Your task to perform on an android device: Go to internet settings Image 0: 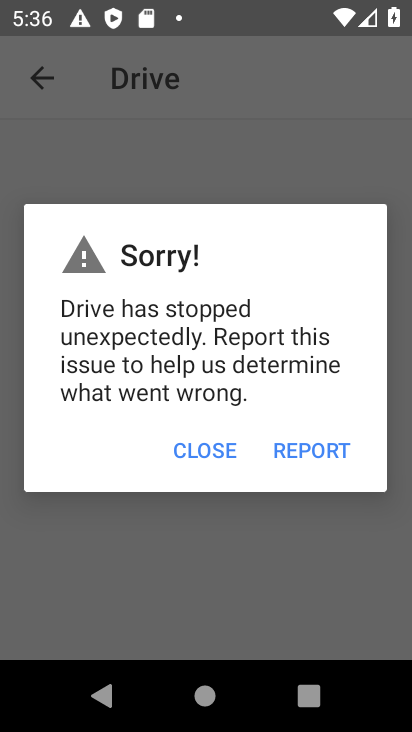
Step 0: press home button
Your task to perform on an android device: Go to internet settings Image 1: 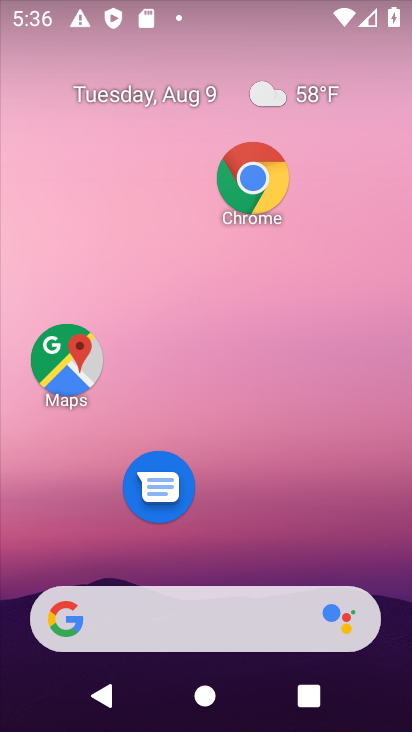
Step 1: drag from (287, 530) to (286, 60)
Your task to perform on an android device: Go to internet settings Image 2: 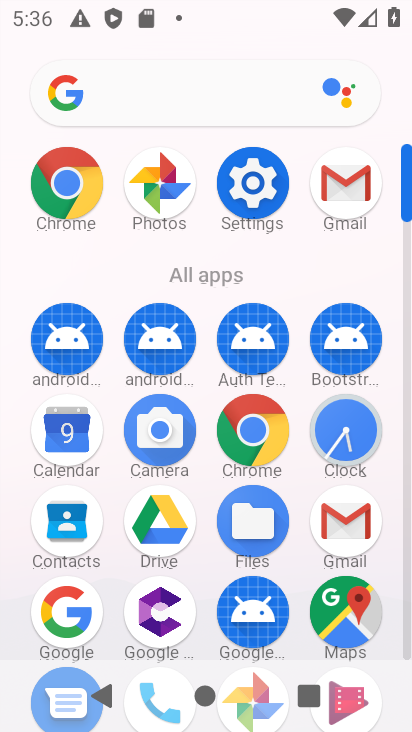
Step 2: click (248, 191)
Your task to perform on an android device: Go to internet settings Image 3: 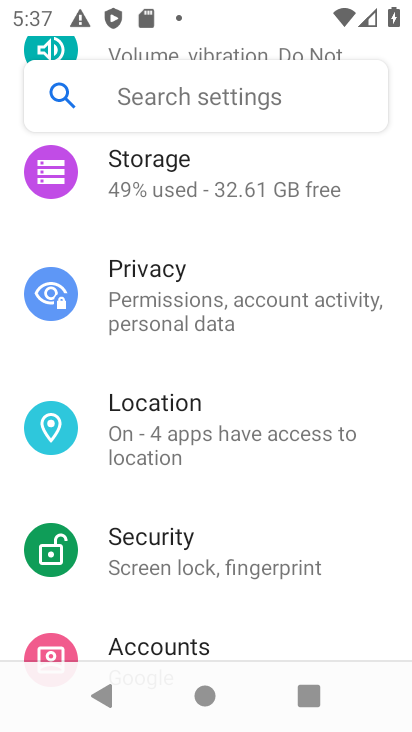
Step 3: drag from (344, 170) to (338, 704)
Your task to perform on an android device: Go to internet settings Image 4: 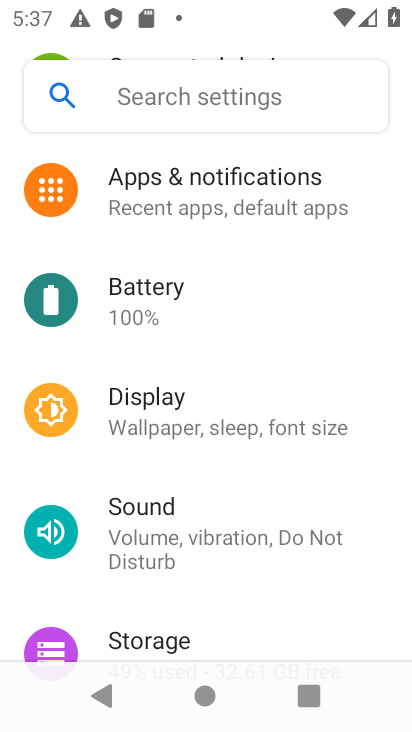
Step 4: drag from (311, 290) to (318, 548)
Your task to perform on an android device: Go to internet settings Image 5: 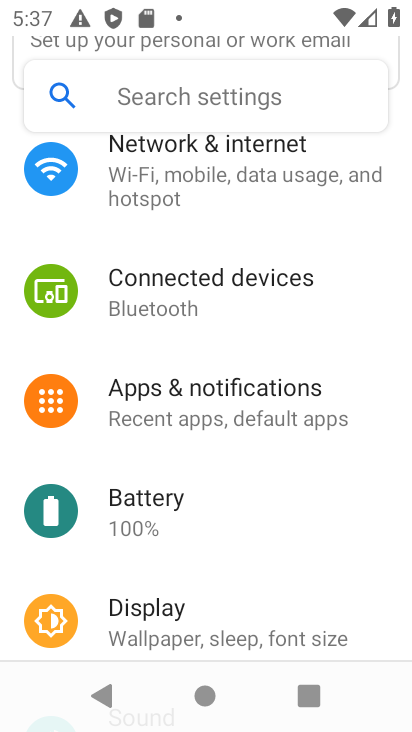
Step 5: click (167, 279)
Your task to perform on an android device: Go to internet settings Image 6: 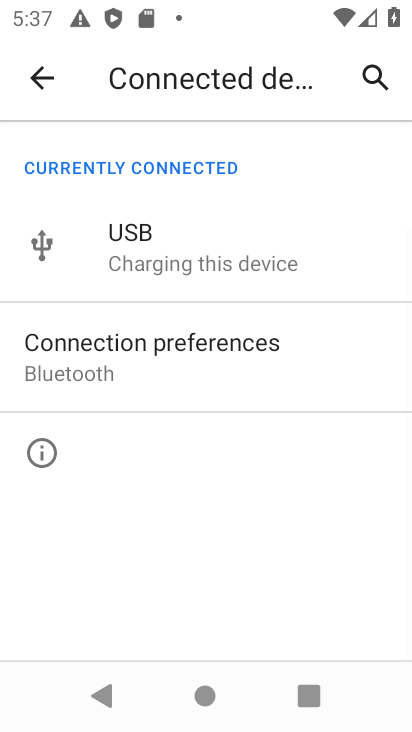
Step 6: click (46, 85)
Your task to perform on an android device: Go to internet settings Image 7: 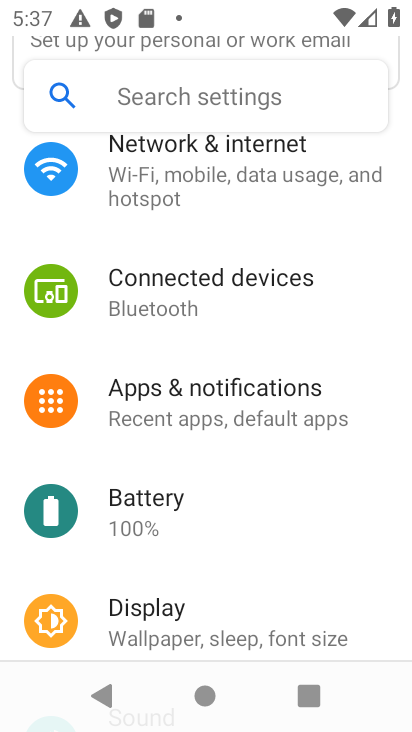
Step 7: click (133, 150)
Your task to perform on an android device: Go to internet settings Image 8: 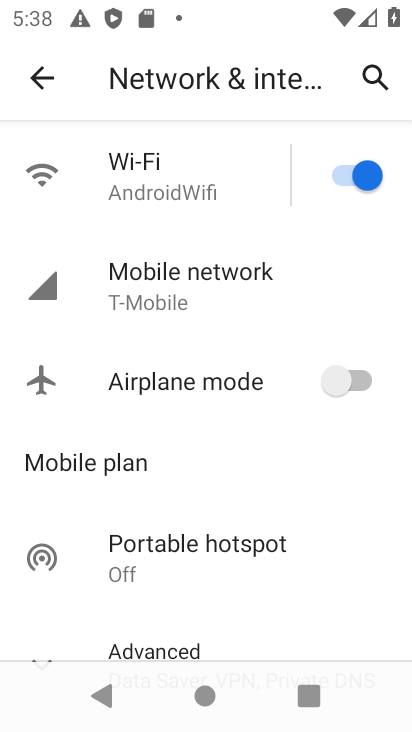
Step 8: task complete